Your task to perform on an android device: open chrome and create a bookmark for the current page Image 0: 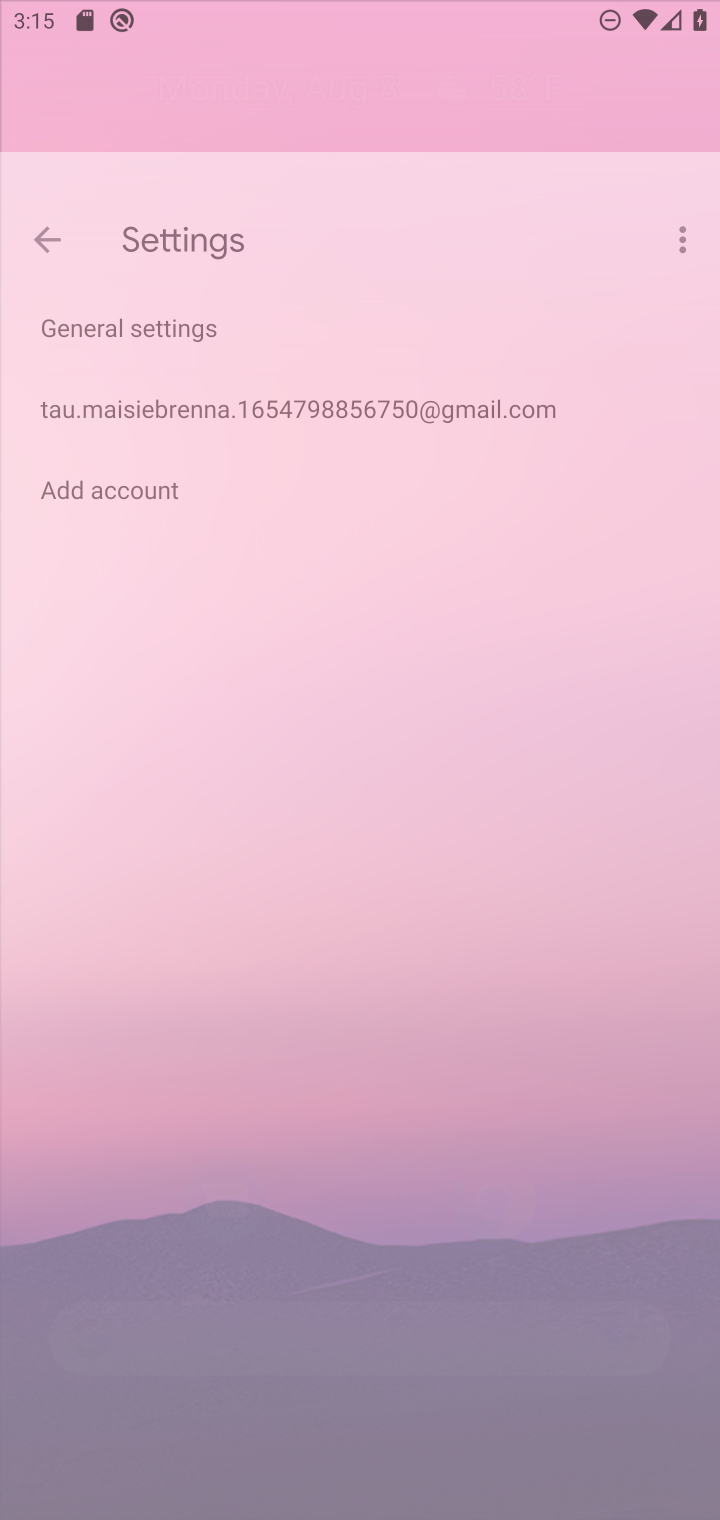
Step 0: press home button
Your task to perform on an android device: open chrome and create a bookmark for the current page Image 1: 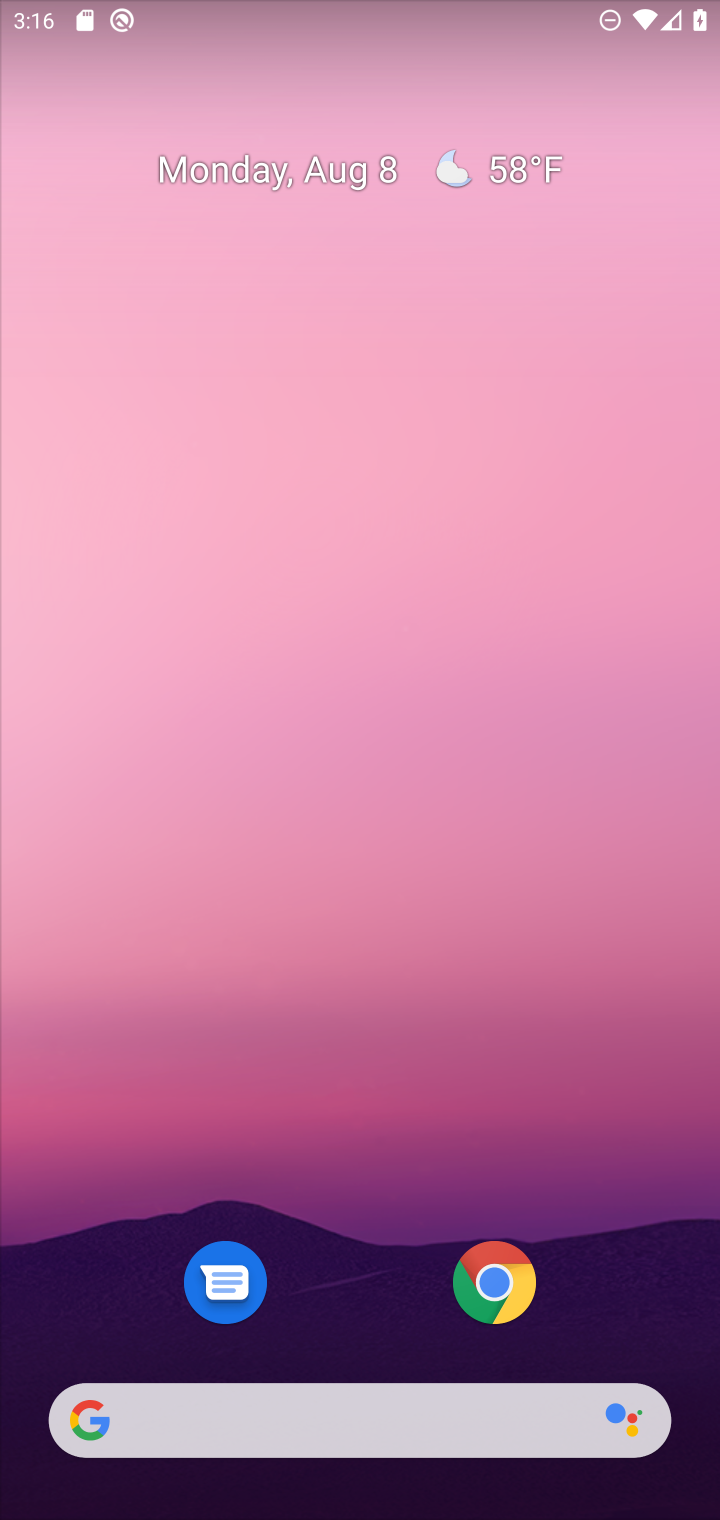
Step 1: drag from (400, 950) to (630, 8)
Your task to perform on an android device: open chrome and create a bookmark for the current page Image 2: 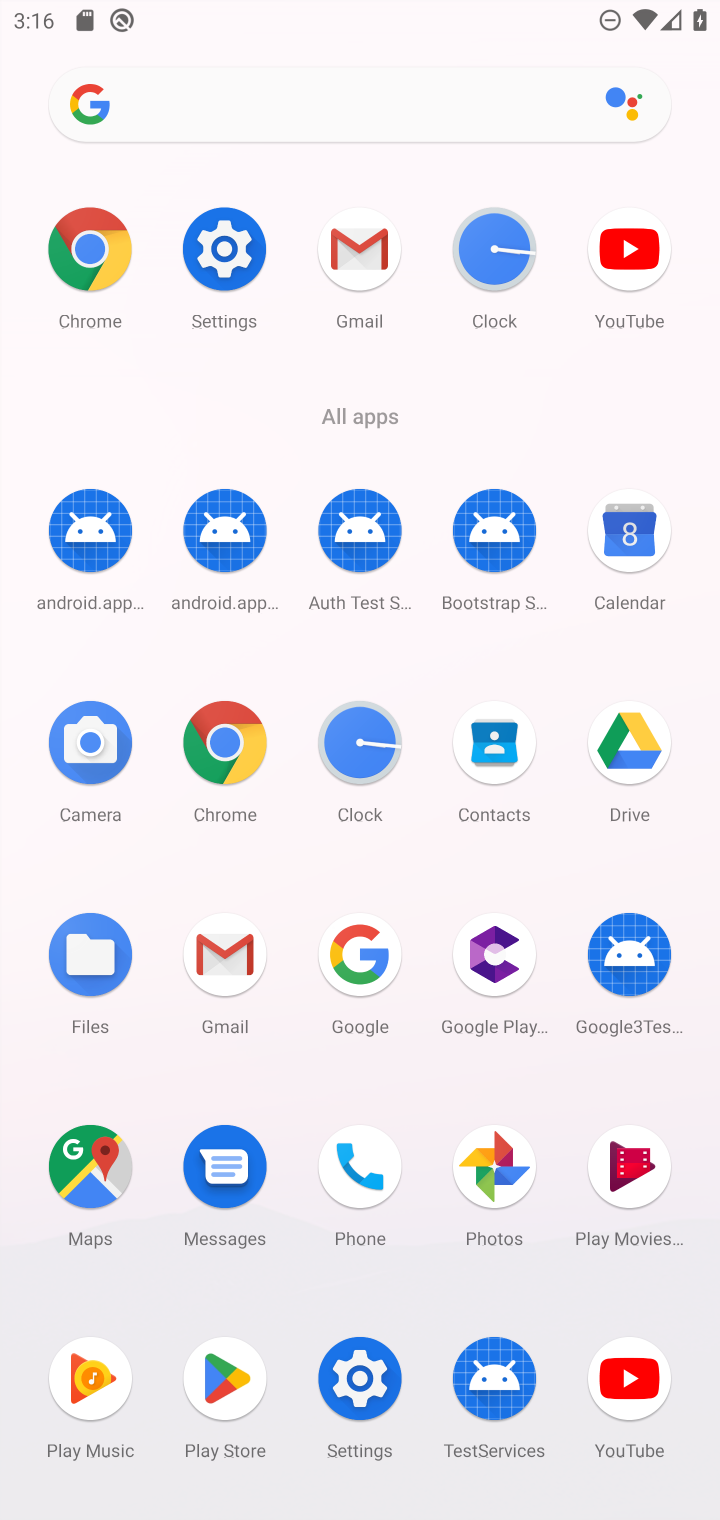
Step 2: click (224, 747)
Your task to perform on an android device: open chrome and create a bookmark for the current page Image 3: 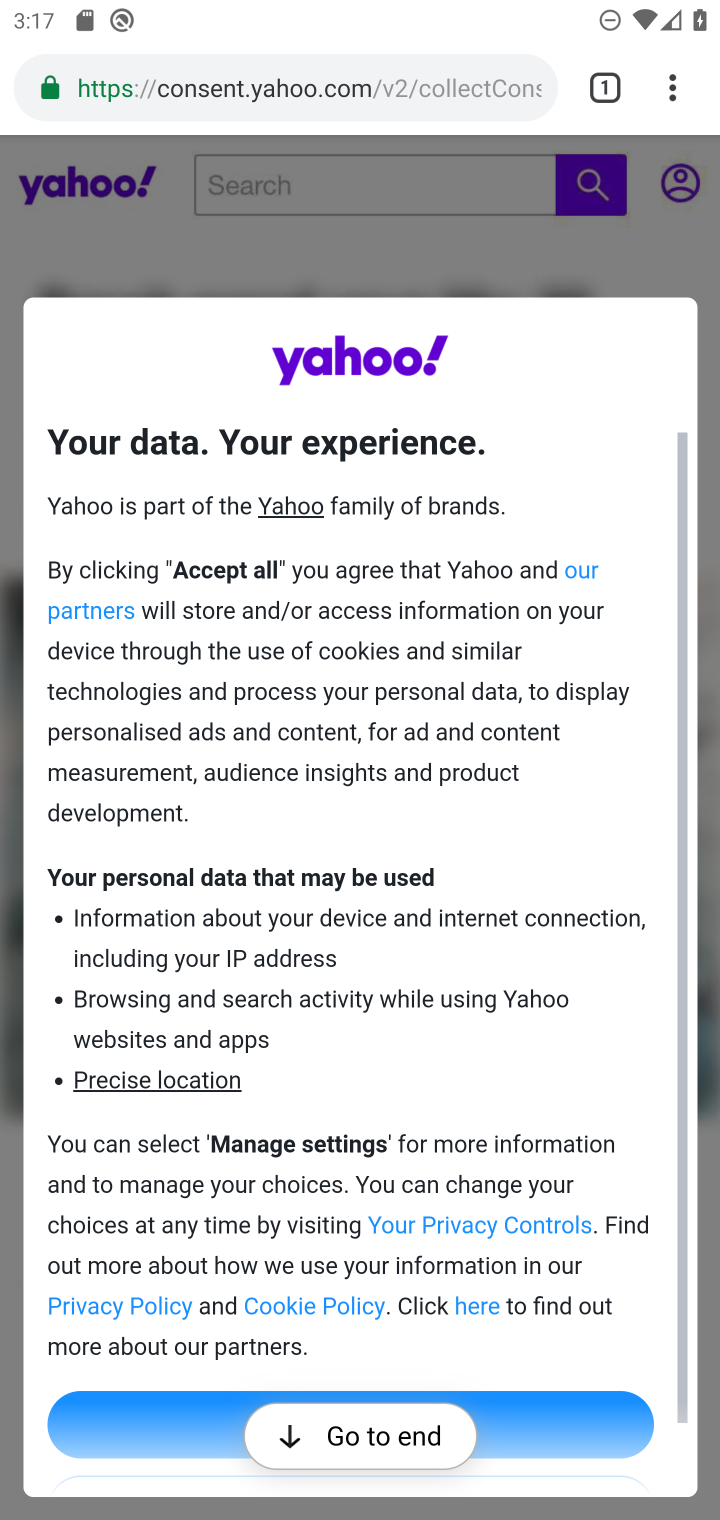
Step 3: task complete